Your task to perform on an android device: Do I have any events tomorrow? Image 0: 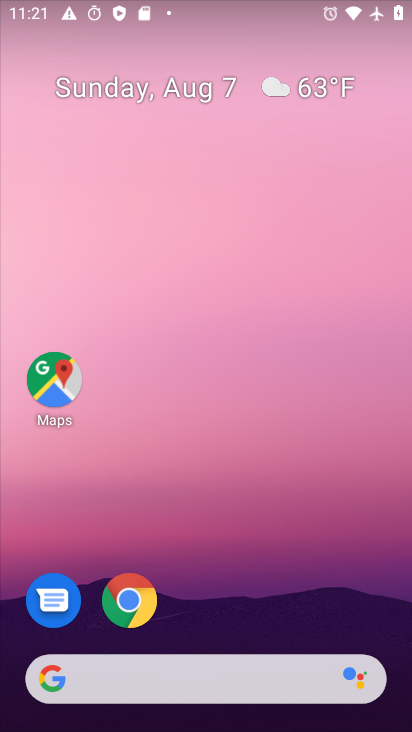
Step 0: drag from (223, 667) to (229, 168)
Your task to perform on an android device: Do I have any events tomorrow? Image 1: 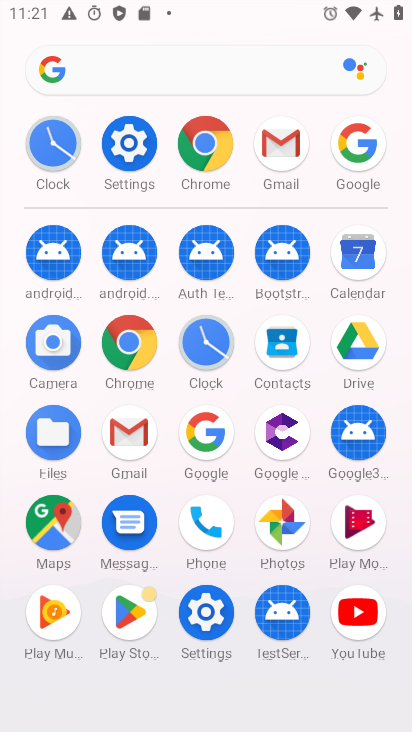
Step 1: click (346, 270)
Your task to perform on an android device: Do I have any events tomorrow? Image 2: 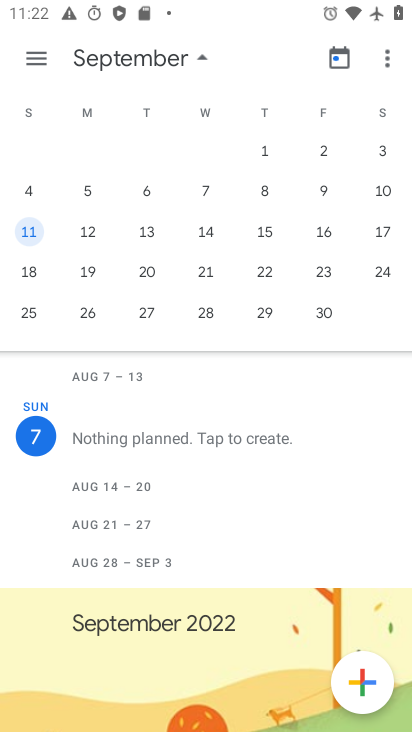
Step 2: drag from (285, 191) to (187, 276)
Your task to perform on an android device: Do I have any events tomorrow? Image 3: 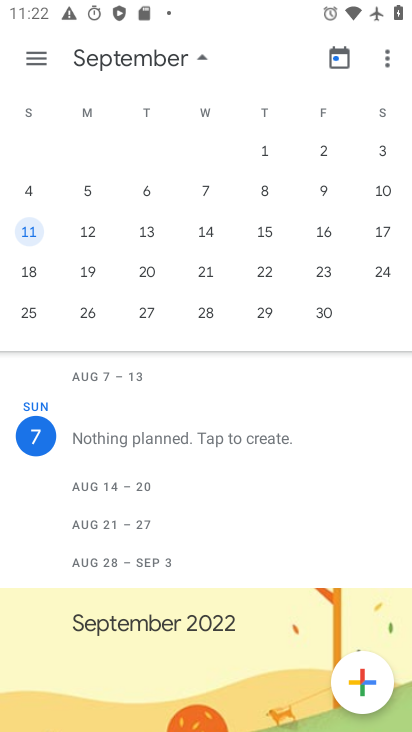
Step 3: drag from (73, 252) to (403, 126)
Your task to perform on an android device: Do I have any events tomorrow? Image 4: 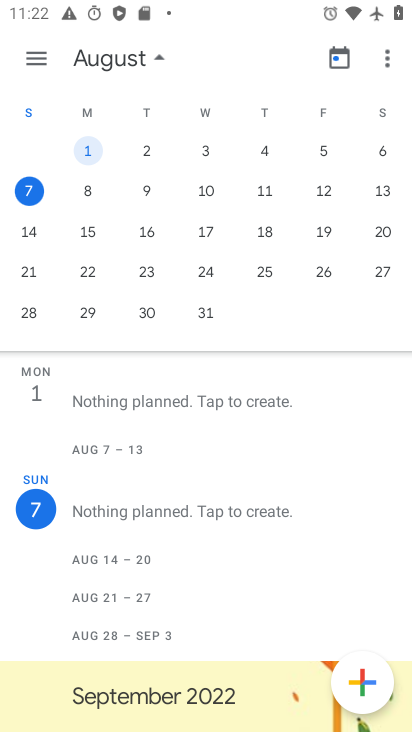
Step 4: click (94, 185)
Your task to perform on an android device: Do I have any events tomorrow? Image 5: 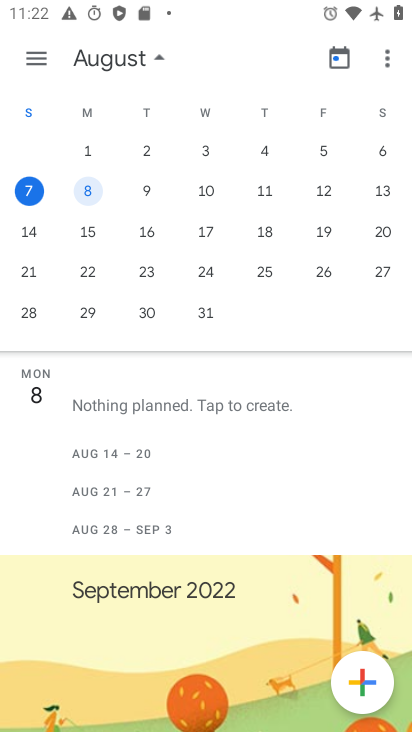
Step 5: task complete